Your task to perform on an android device: turn pop-ups off in chrome Image 0: 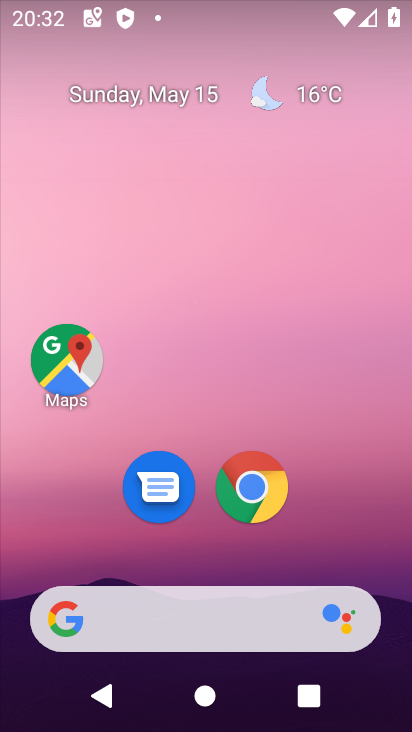
Step 0: click (249, 491)
Your task to perform on an android device: turn pop-ups off in chrome Image 1: 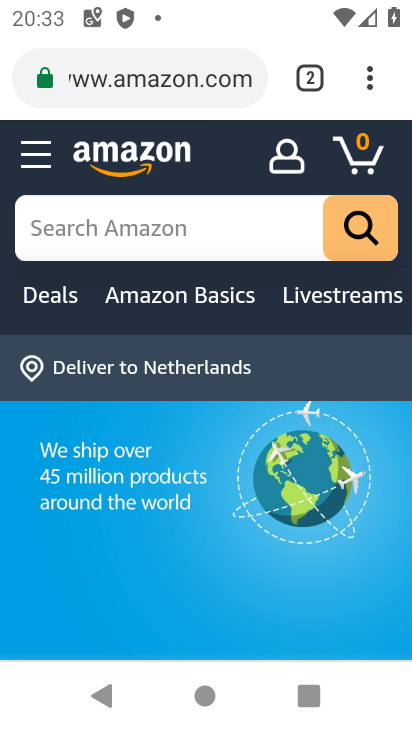
Step 1: click (365, 69)
Your task to perform on an android device: turn pop-ups off in chrome Image 2: 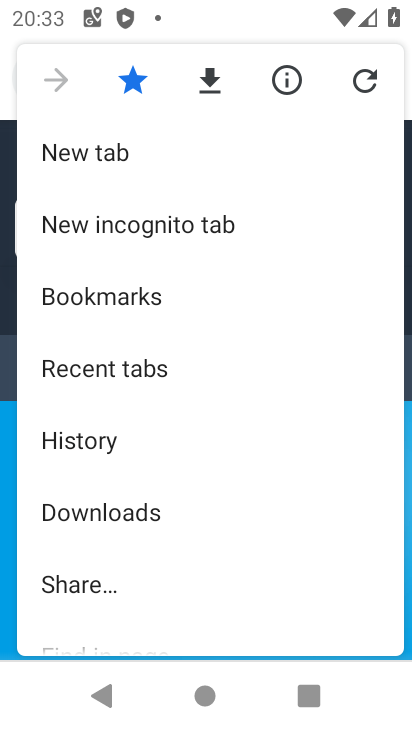
Step 2: drag from (257, 631) to (296, 380)
Your task to perform on an android device: turn pop-ups off in chrome Image 3: 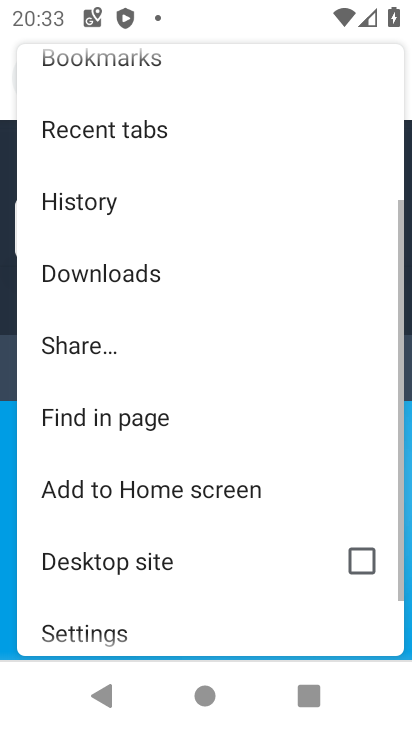
Step 3: click (90, 632)
Your task to perform on an android device: turn pop-ups off in chrome Image 4: 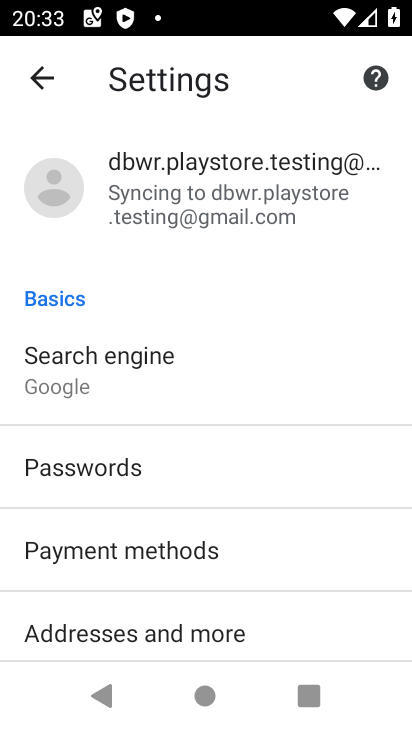
Step 4: drag from (319, 627) to (332, 294)
Your task to perform on an android device: turn pop-ups off in chrome Image 5: 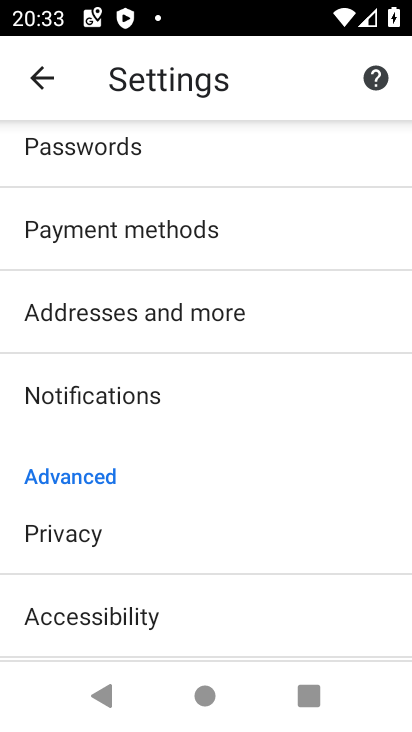
Step 5: drag from (310, 563) to (329, 326)
Your task to perform on an android device: turn pop-ups off in chrome Image 6: 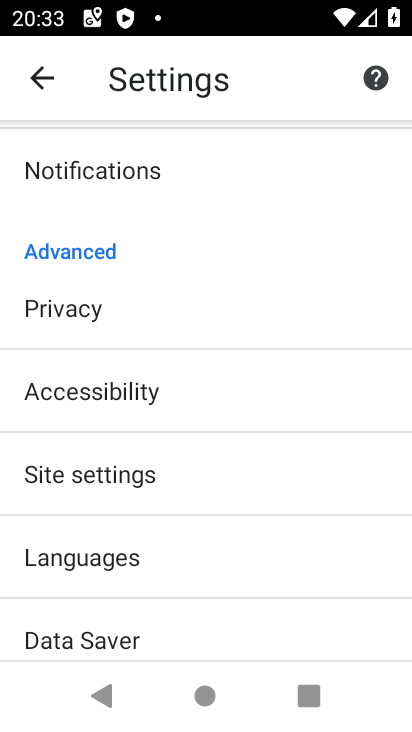
Step 6: drag from (316, 609) to (343, 290)
Your task to perform on an android device: turn pop-ups off in chrome Image 7: 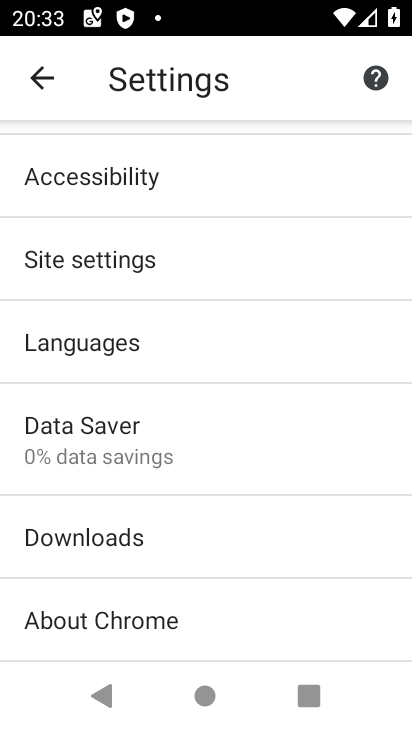
Step 7: click (85, 261)
Your task to perform on an android device: turn pop-ups off in chrome Image 8: 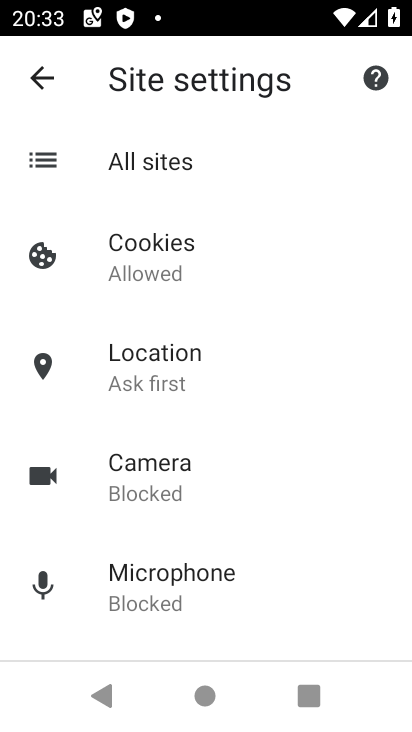
Step 8: drag from (298, 545) to (315, 369)
Your task to perform on an android device: turn pop-ups off in chrome Image 9: 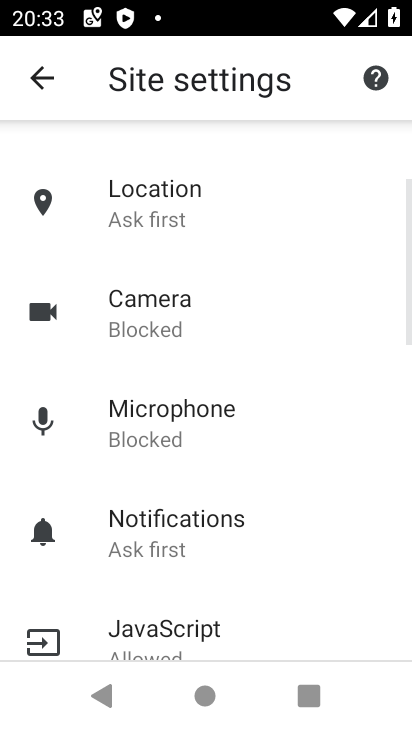
Step 9: drag from (301, 621) to (320, 360)
Your task to perform on an android device: turn pop-ups off in chrome Image 10: 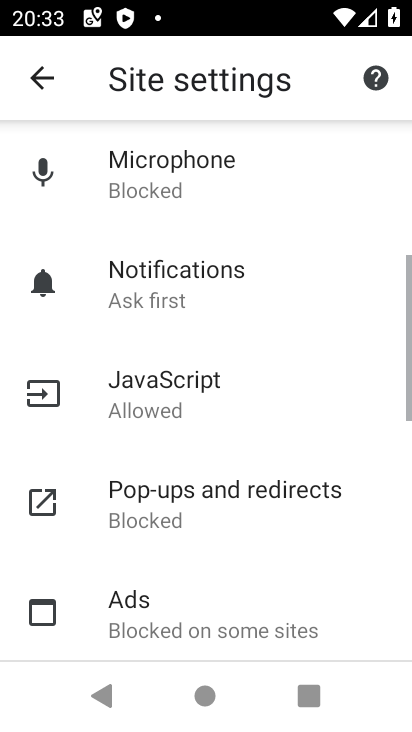
Step 10: click (139, 499)
Your task to perform on an android device: turn pop-ups off in chrome Image 11: 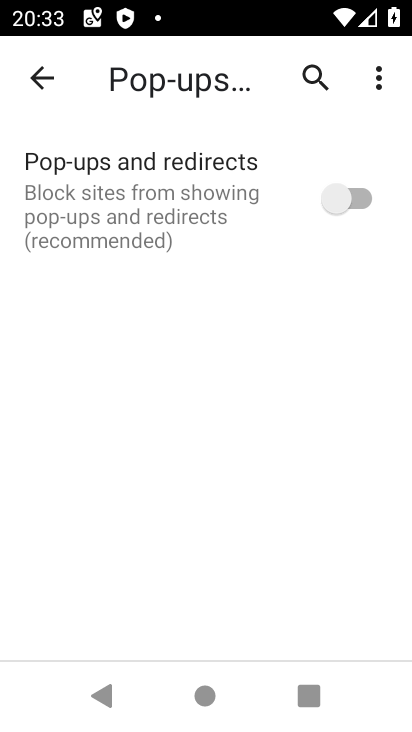
Step 11: task complete